Your task to perform on an android device: turn on the 24-hour format for clock Image 0: 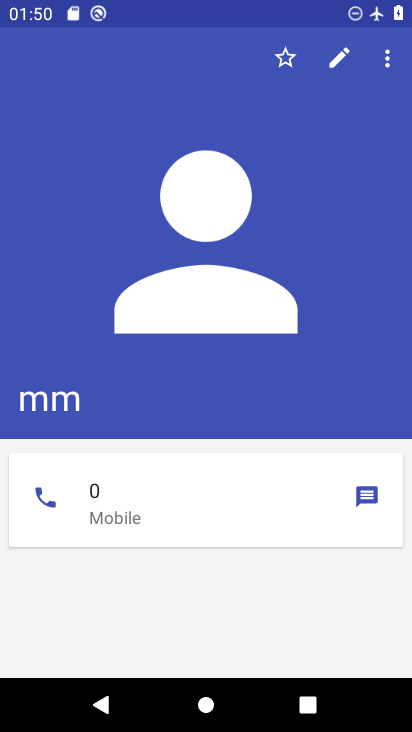
Step 0: press home button
Your task to perform on an android device: turn on the 24-hour format for clock Image 1: 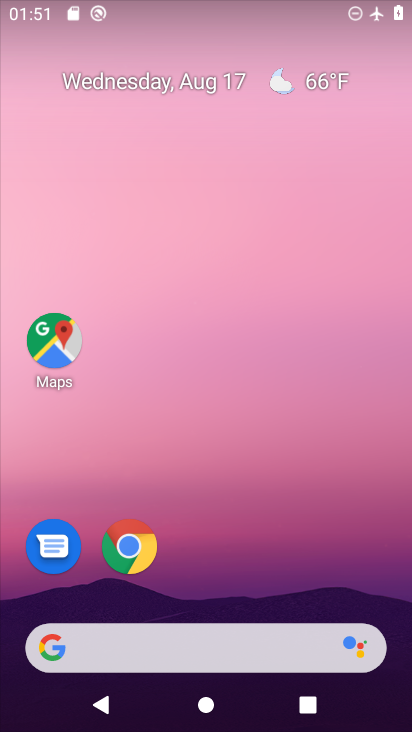
Step 1: drag from (255, 555) to (245, 36)
Your task to perform on an android device: turn on the 24-hour format for clock Image 2: 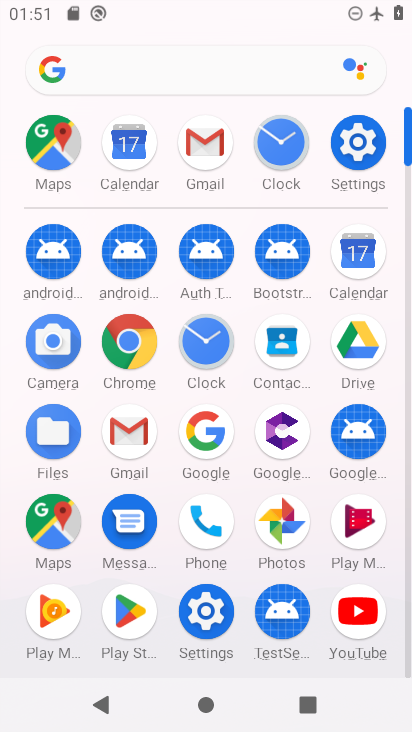
Step 2: click (278, 138)
Your task to perform on an android device: turn on the 24-hour format for clock Image 3: 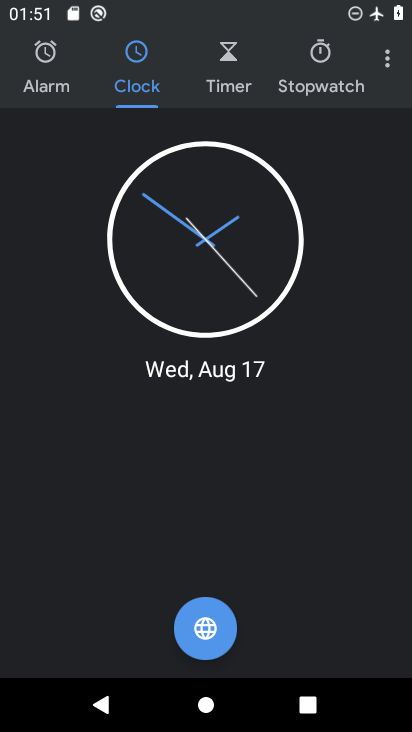
Step 3: click (392, 60)
Your task to perform on an android device: turn on the 24-hour format for clock Image 4: 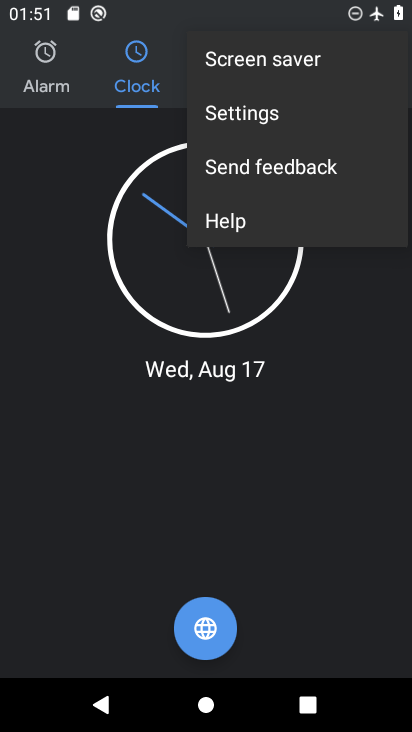
Step 4: click (263, 111)
Your task to perform on an android device: turn on the 24-hour format for clock Image 5: 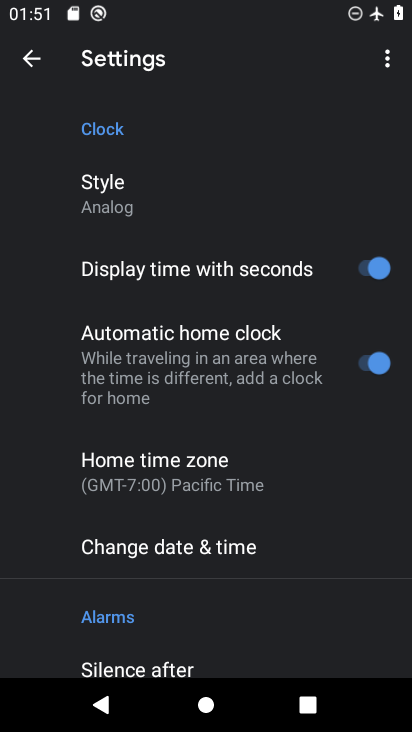
Step 5: click (189, 545)
Your task to perform on an android device: turn on the 24-hour format for clock Image 6: 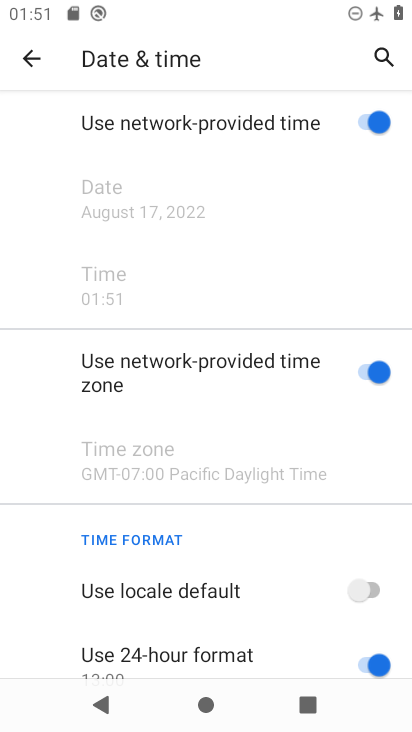
Step 6: task complete